Your task to perform on an android device: delete a single message in the gmail app Image 0: 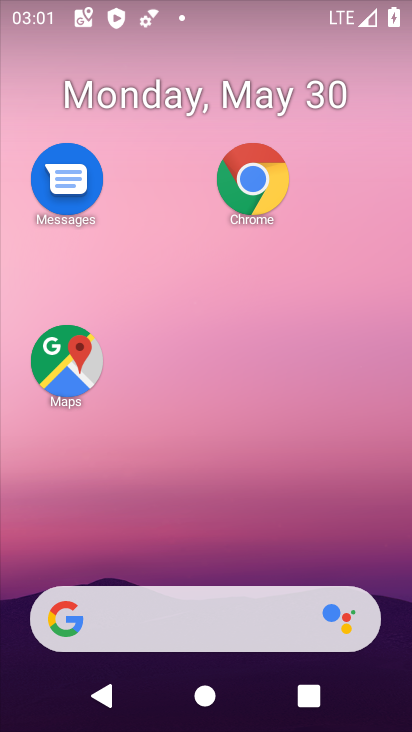
Step 0: drag from (210, 540) to (285, 1)
Your task to perform on an android device: delete a single message in the gmail app Image 1: 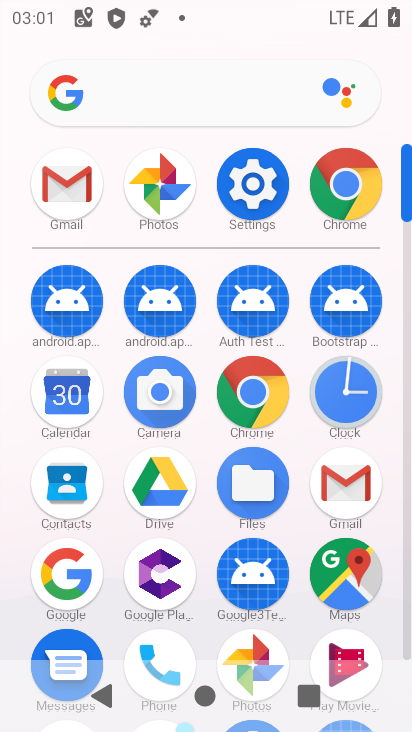
Step 1: click (335, 501)
Your task to perform on an android device: delete a single message in the gmail app Image 2: 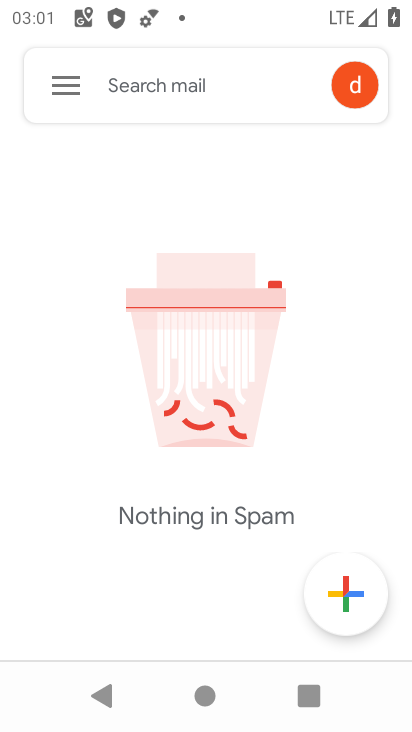
Step 2: click (61, 96)
Your task to perform on an android device: delete a single message in the gmail app Image 3: 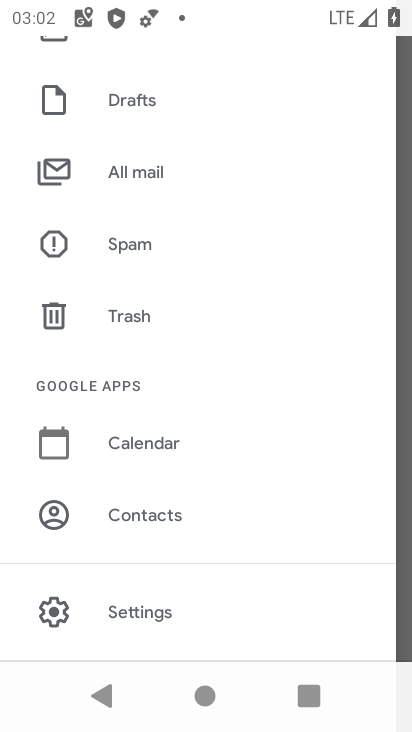
Step 3: click (161, 184)
Your task to perform on an android device: delete a single message in the gmail app Image 4: 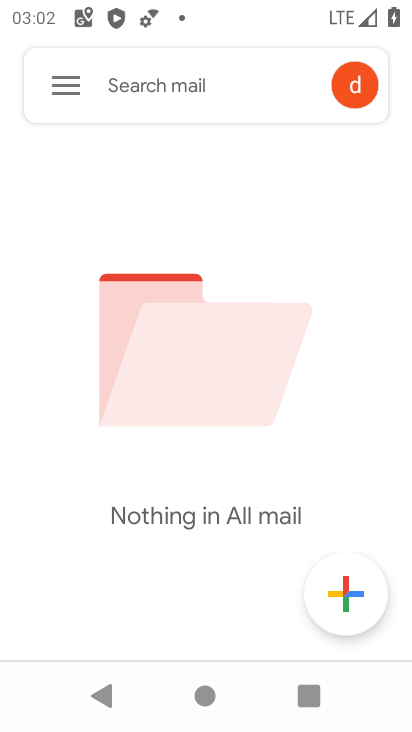
Step 4: task complete